Your task to perform on an android device: turn off smart reply in the gmail app Image 0: 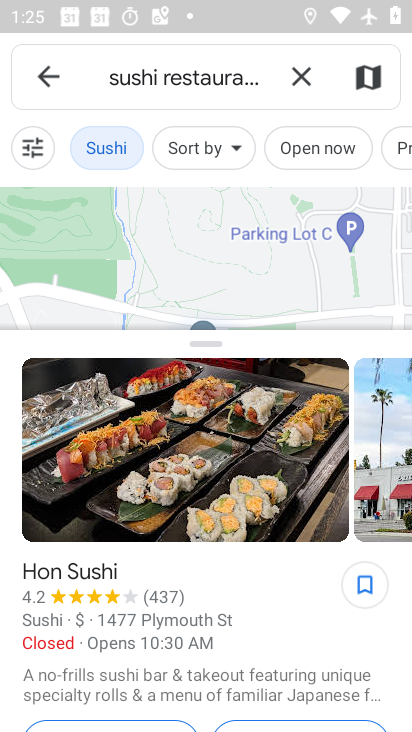
Step 0: press home button
Your task to perform on an android device: turn off smart reply in the gmail app Image 1: 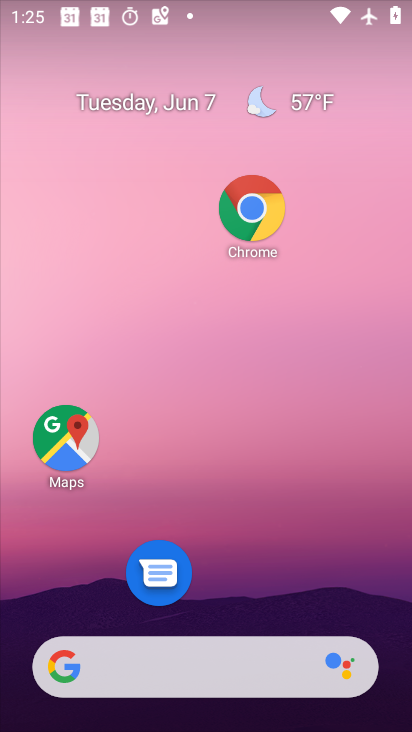
Step 1: drag from (247, 564) to (244, 247)
Your task to perform on an android device: turn off smart reply in the gmail app Image 2: 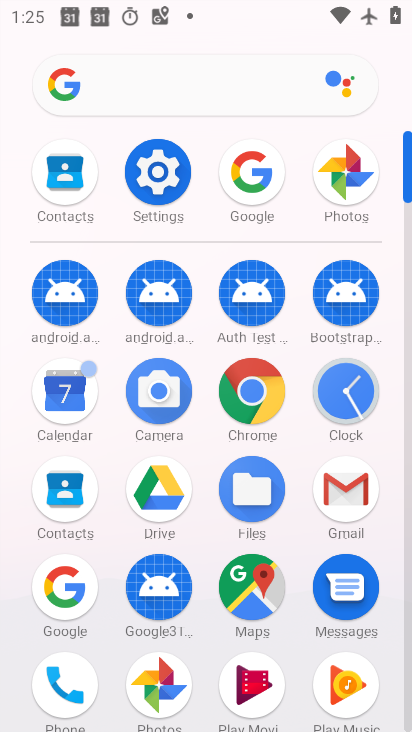
Step 2: click (335, 470)
Your task to perform on an android device: turn off smart reply in the gmail app Image 3: 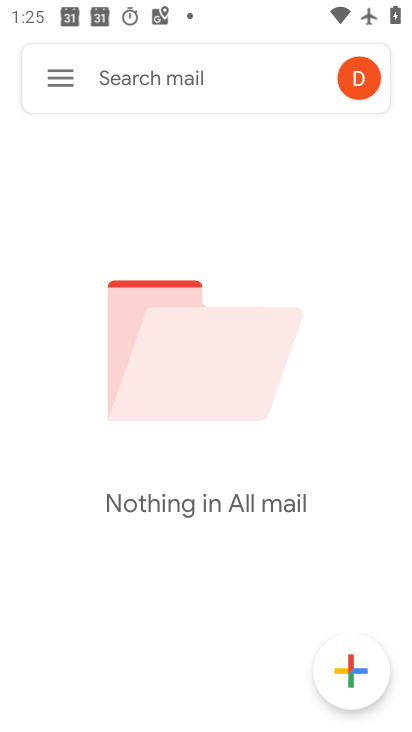
Step 3: click (51, 86)
Your task to perform on an android device: turn off smart reply in the gmail app Image 4: 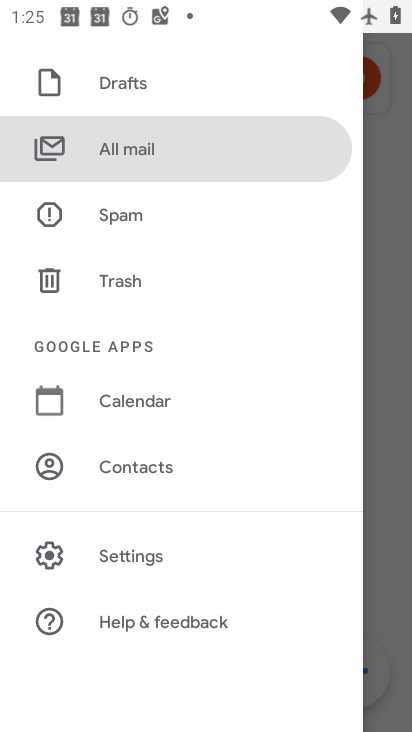
Step 4: click (150, 560)
Your task to perform on an android device: turn off smart reply in the gmail app Image 5: 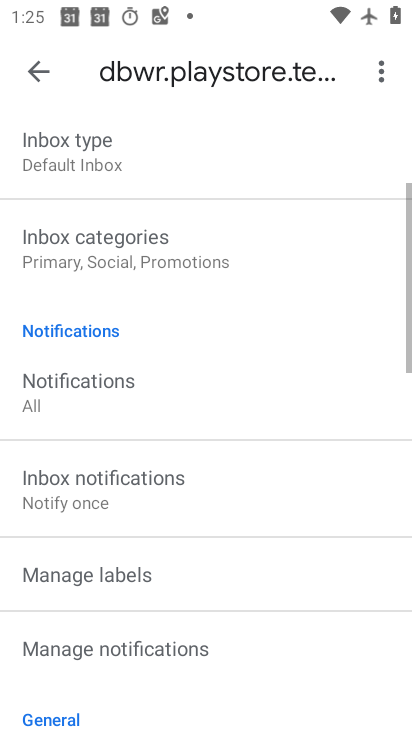
Step 5: drag from (209, 597) to (235, 293)
Your task to perform on an android device: turn off smart reply in the gmail app Image 6: 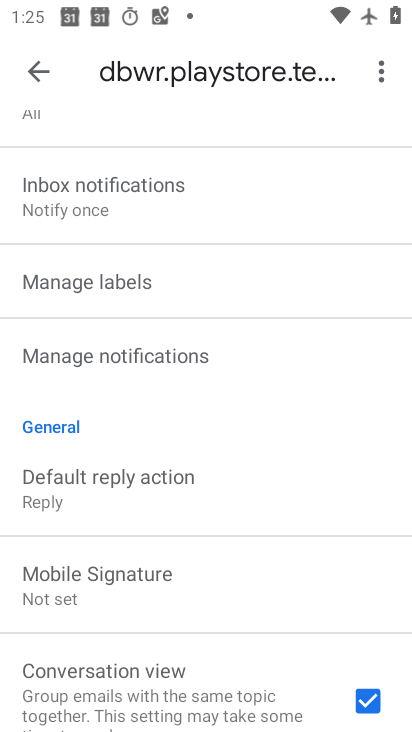
Step 6: drag from (208, 586) to (208, 299)
Your task to perform on an android device: turn off smart reply in the gmail app Image 7: 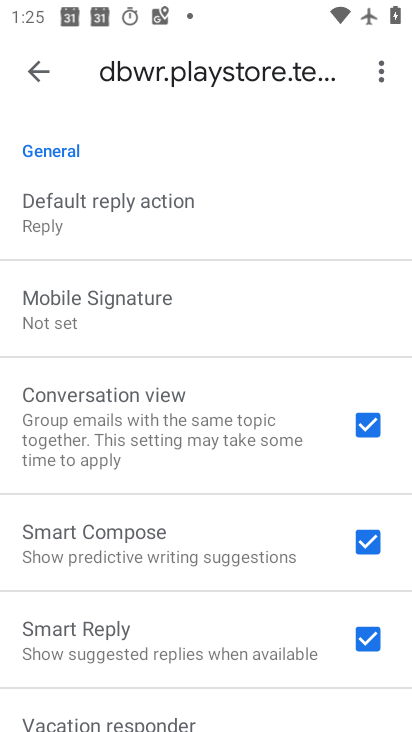
Step 7: click (361, 636)
Your task to perform on an android device: turn off smart reply in the gmail app Image 8: 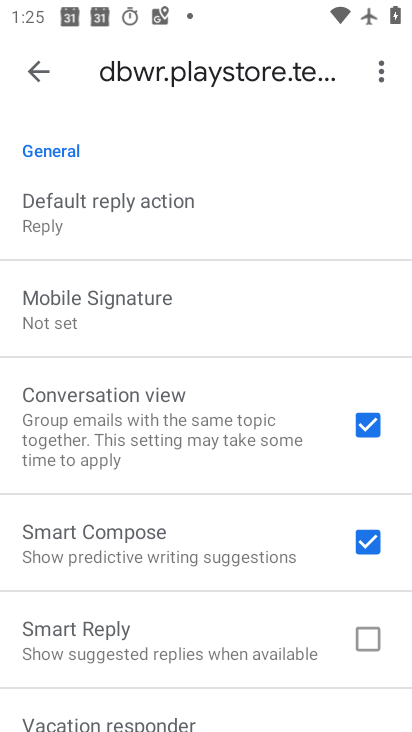
Step 8: task complete